Your task to perform on an android device: Look up the book "The Girl on the Train". Image 0: 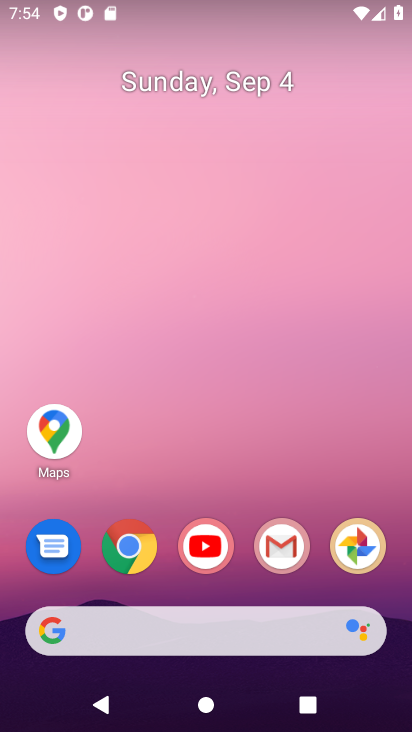
Step 0: click (128, 549)
Your task to perform on an android device: Look up the book "The Girl on the Train". Image 1: 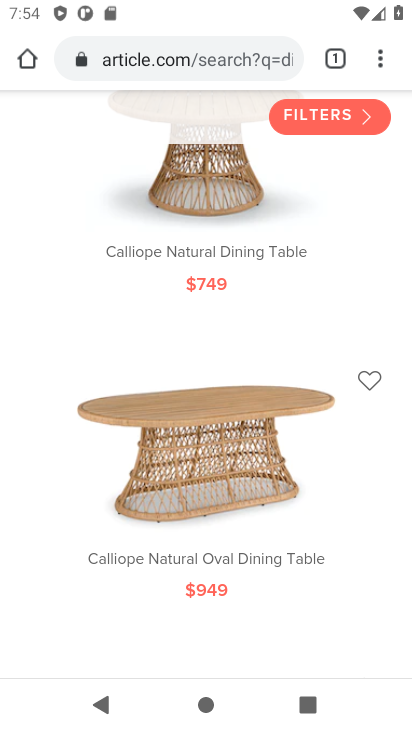
Step 1: click (188, 67)
Your task to perform on an android device: Look up the book "The Girl on the Train". Image 2: 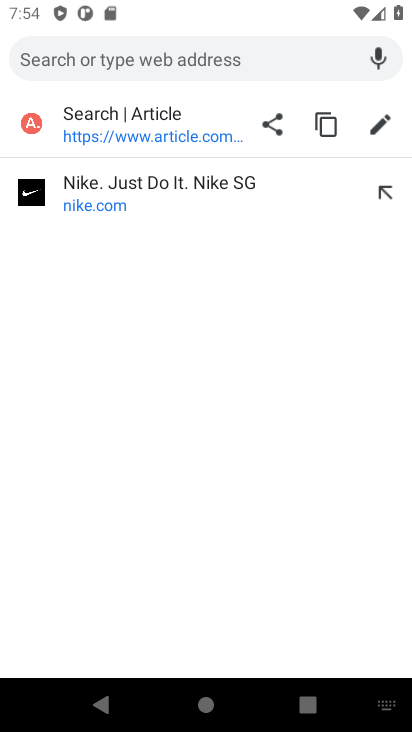
Step 2: type "The Girl on the Train book"
Your task to perform on an android device: Look up the book "The Girl on the Train". Image 3: 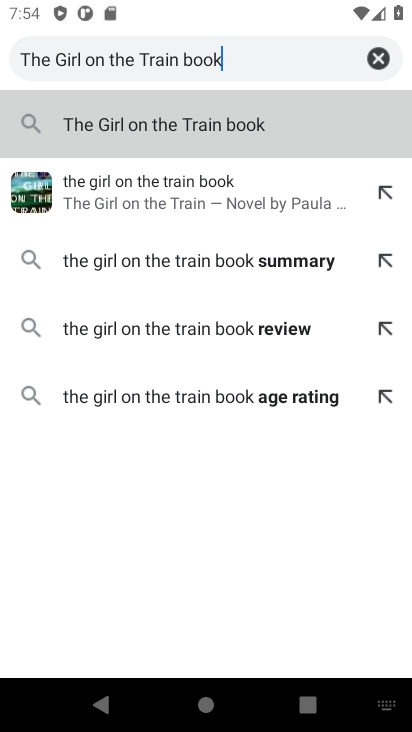
Step 3: click (113, 190)
Your task to perform on an android device: Look up the book "The Girl on the Train". Image 4: 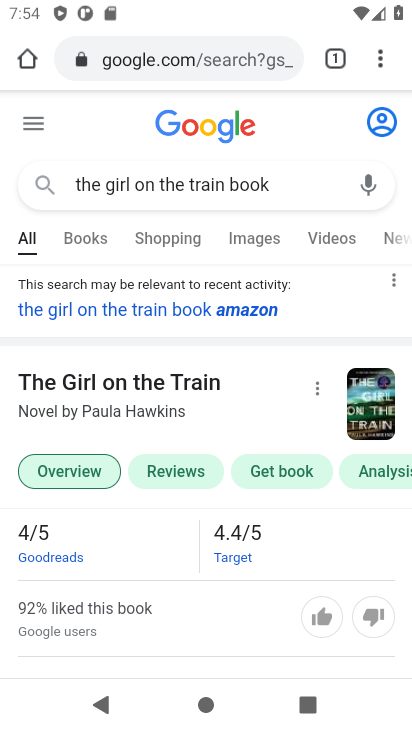
Step 4: task complete